Your task to perform on an android device: Do I have any events tomorrow? Image 0: 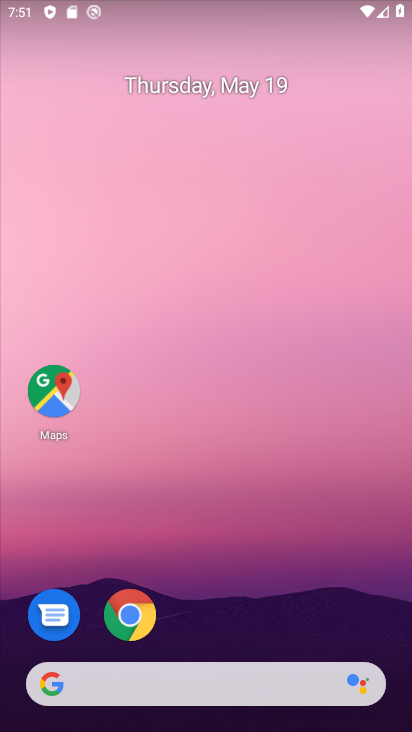
Step 0: drag from (264, 599) to (198, 53)
Your task to perform on an android device: Do I have any events tomorrow? Image 1: 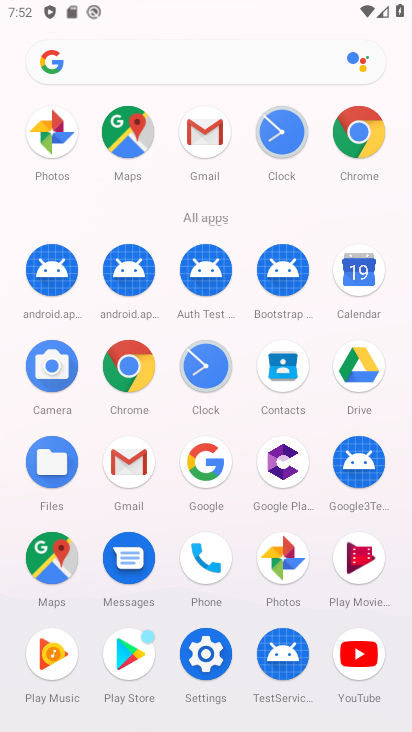
Step 1: click (355, 278)
Your task to perform on an android device: Do I have any events tomorrow? Image 2: 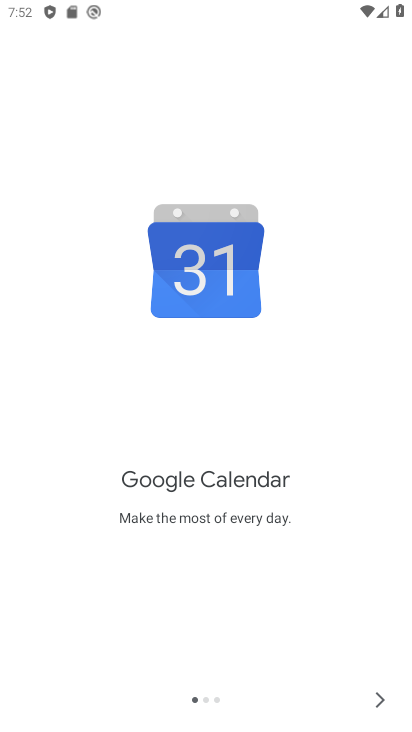
Step 2: click (375, 694)
Your task to perform on an android device: Do I have any events tomorrow? Image 3: 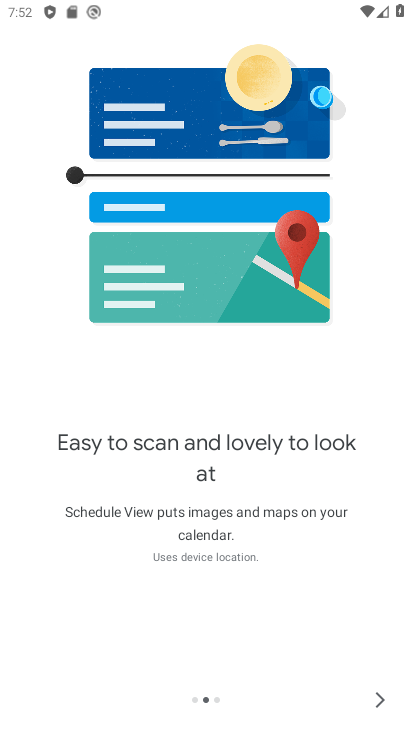
Step 3: click (375, 694)
Your task to perform on an android device: Do I have any events tomorrow? Image 4: 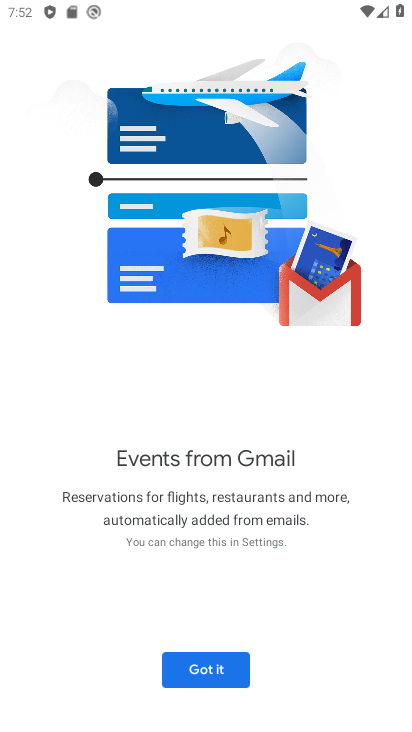
Step 4: click (222, 661)
Your task to perform on an android device: Do I have any events tomorrow? Image 5: 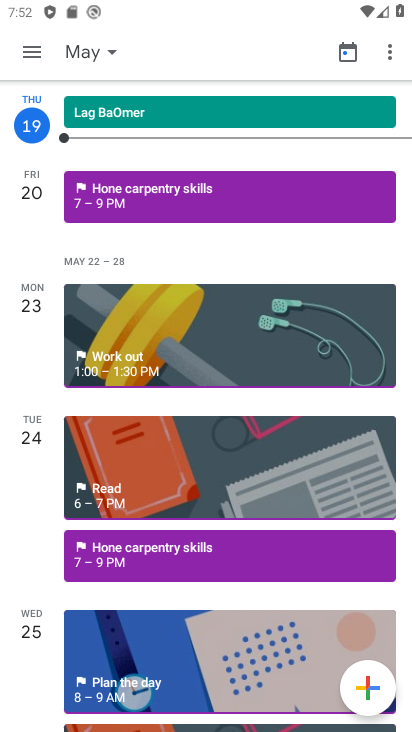
Step 5: click (58, 46)
Your task to perform on an android device: Do I have any events tomorrow? Image 6: 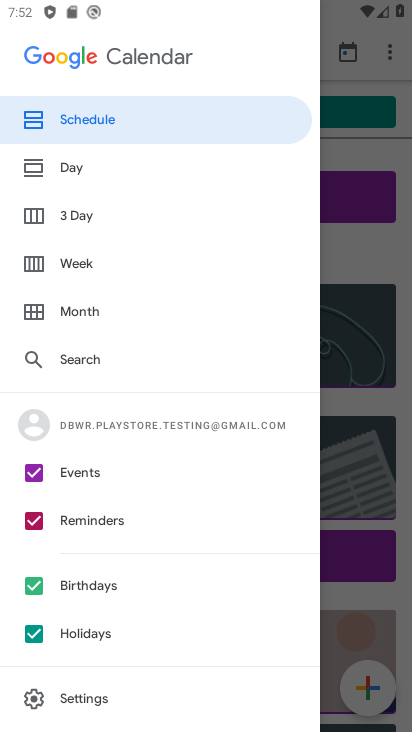
Step 6: press back button
Your task to perform on an android device: Do I have any events tomorrow? Image 7: 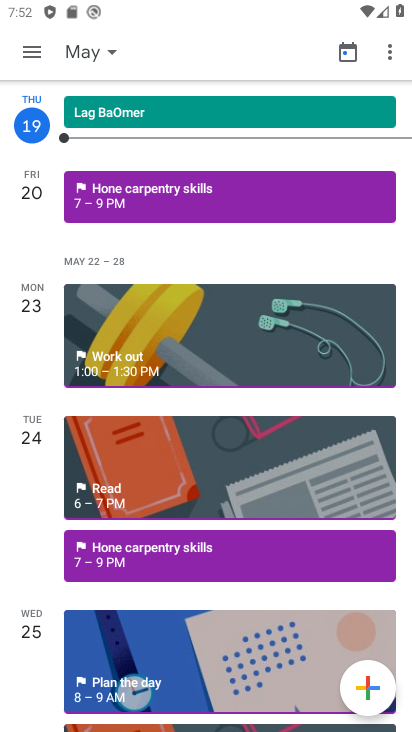
Step 7: click (98, 50)
Your task to perform on an android device: Do I have any events tomorrow? Image 8: 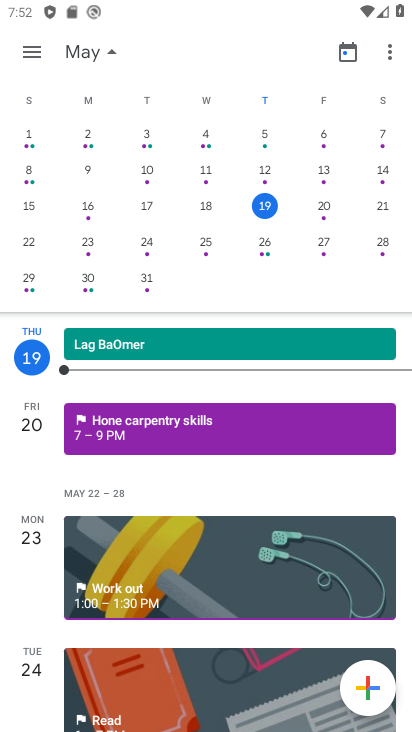
Step 8: click (318, 207)
Your task to perform on an android device: Do I have any events tomorrow? Image 9: 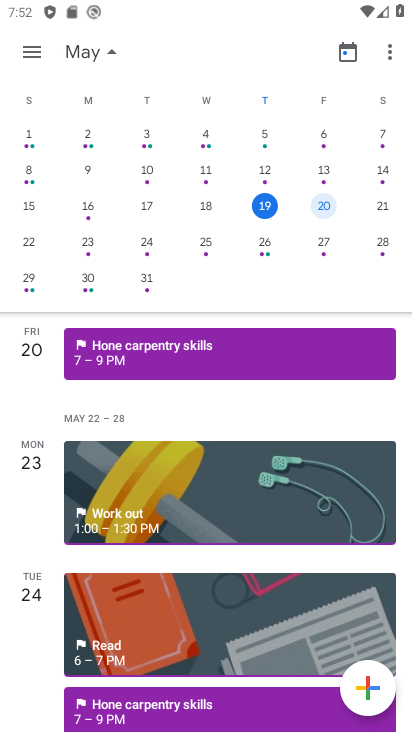
Step 9: task complete